Your task to perform on an android device: Clear the shopping cart on bestbuy.com. Add "bose soundsport free" to the cart on bestbuy.com Image 0: 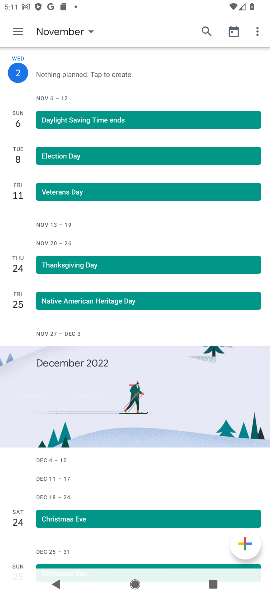
Step 0: press home button
Your task to perform on an android device: Clear the shopping cart on bestbuy.com. Add "bose soundsport free" to the cart on bestbuy.com Image 1: 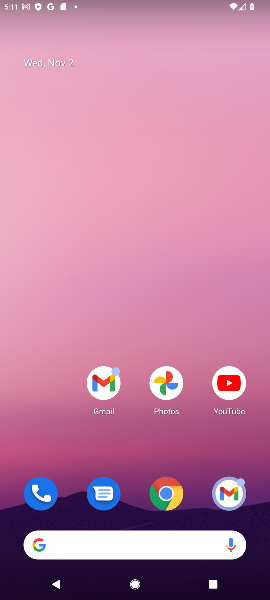
Step 1: drag from (157, 511) to (99, 139)
Your task to perform on an android device: Clear the shopping cart on bestbuy.com. Add "bose soundsport free" to the cart on bestbuy.com Image 2: 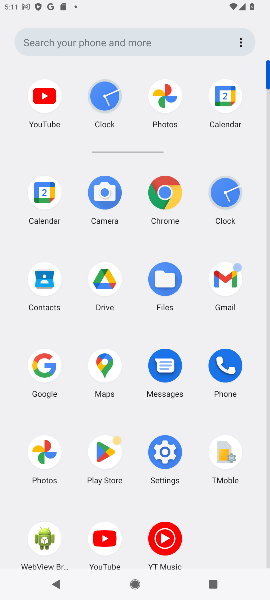
Step 2: click (44, 356)
Your task to perform on an android device: Clear the shopping cart on bestbuy.com. Add "bose soundsport free" to the cart on bestbuy.com Image 3: 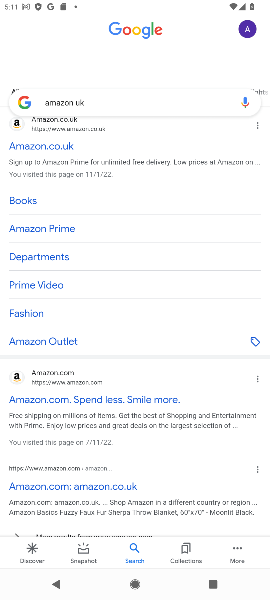
Step 3: click (85, 95)
Your task to perform on an android device: Clear the shopping cart on bestbuy.com. Add "bose soundsport free" to the cart on bestbuy.com Image 4: 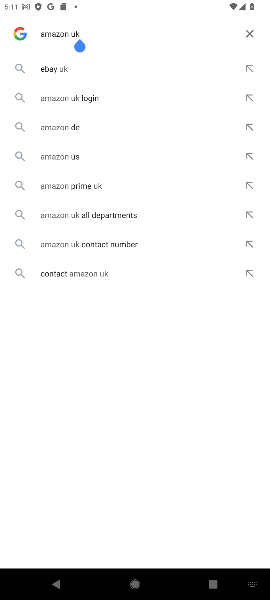
Step 4: click (249, 31)
Your task to perform on an android device: Clear the shopping cart on bestbuy.com. Add "bose soundsport free" to the cart on bestbuy.com Image 5: 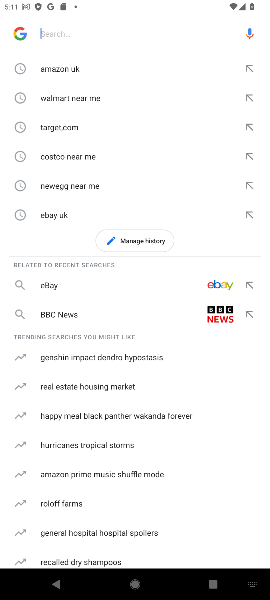
Step 5: click (86, 26)
Your task to perform on an android device: Clear the shopping cart on bestbuy.com. Add "bose soundsport free" to the cart on bestbuy.com Image 6: 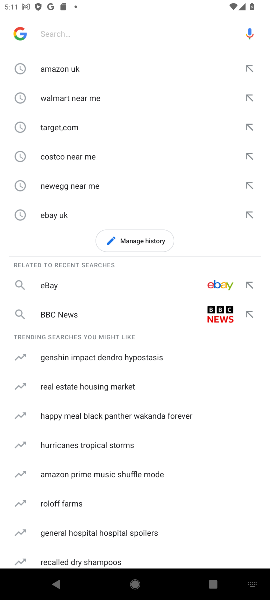
Step 6: type "bestbuy "
Your task to perform on an android device: Clear the shopping cart on bestbuy.com. Add "bose soundsport free" to the cart on bestbuy.com Image 7: 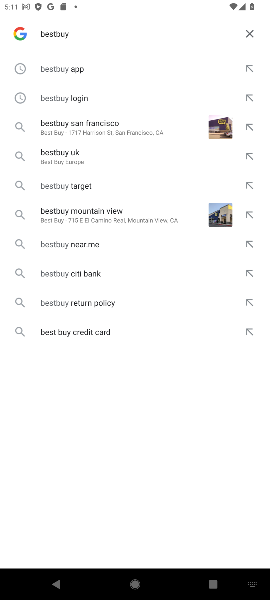
Step 7: click (66, 66)
Your task to perform on an android device: Clear the shopping cart on bestbuy.com. Add "bose soundsport free" to the cart on bestbuy.com Image 8: 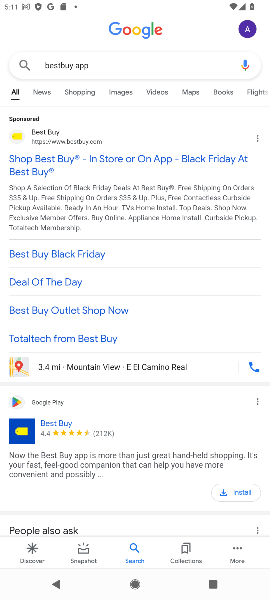
Step 8: click (14, 136)
Your task to perform on an android device: Clear the shopping cart on bestbuy.com. Add "bose soundsport free" to the cart on bestbuy.com Image 9: 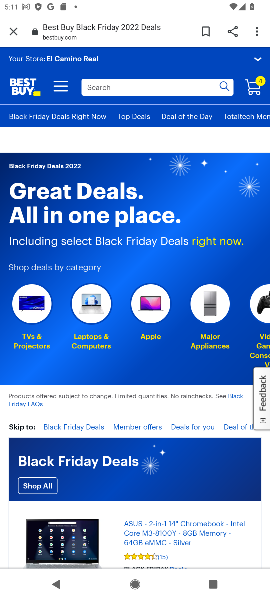
Step 9: click (148, 81)
Your task to perform on an android device: Clear the shopping cart on bestbuy.com. Add "bose soundsport free" to the cart on bestbuy.com Image 10: 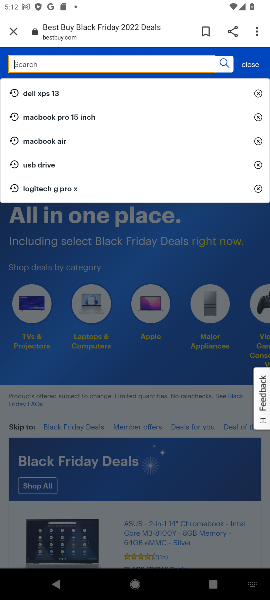
Step 10: type "bose soundsport free "
Your task to perform on an android device: Clear the shopping cart on bestbuy.com. Add "bose soundsport free" to the cart on bestbuy.com Image 11: 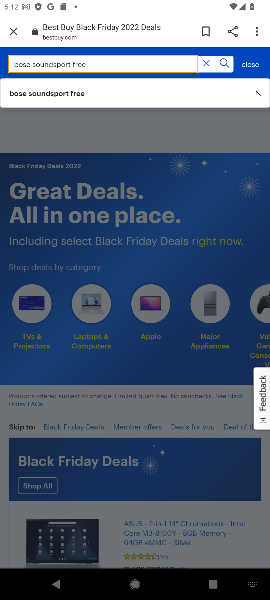
Step 11: click (80, 97)
Your task to perform on an android device: Clear the shopping cart on bestbuy.com. Add "bose soundsport free" to the cart on bestbuy.com Image 12: 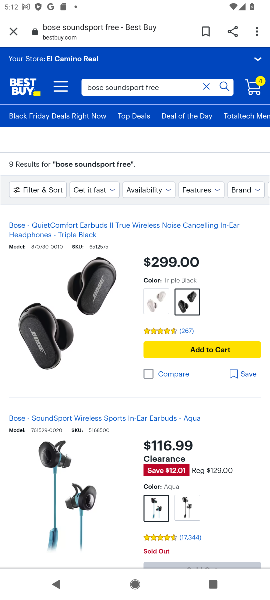
Step 12: click (206, 346)
Your task to perform on an android device: Clear the shopping cart on bestbuy.com. Add "bose soundsport free" to the cart on bestbuy.com Image 13: 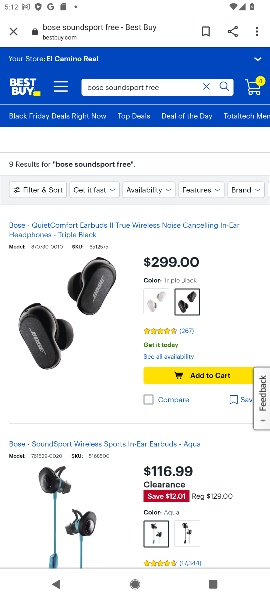
Step 13: click (206, 373)
Your task to perform on an android device: Clear the shopping cart on bestbuy.com. Add "bose soundsport free" to the cart on bestbuy.com Image 14: 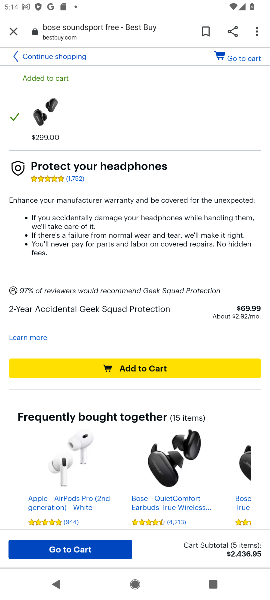
Step 14: click (152, 368)
Your task to perform on an android device: Clear the shopping cart on bestbuy.com. Add "bose soundsport free" to the cart on bestbuy.com Image 15: 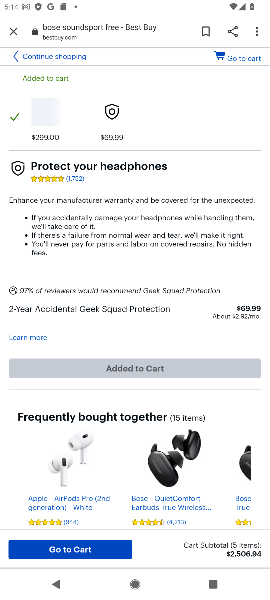
Step 15: task complete